Your task to perform on an android device: open a bookmark in the chrome app Image 0: 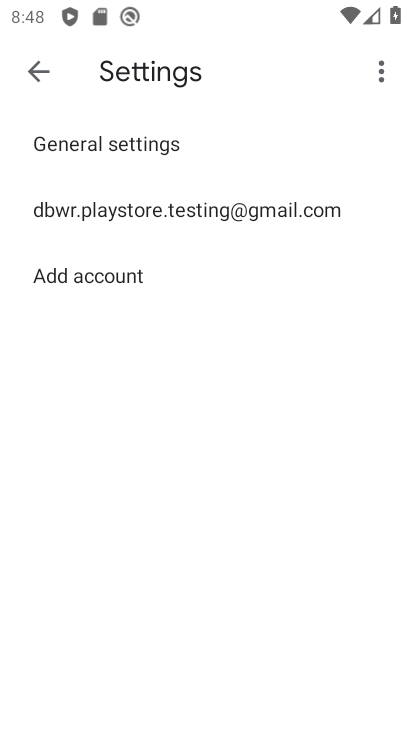
Step 0: press home button
Your task to perform on an android device: open a bookmark in the chrome app Image 1: 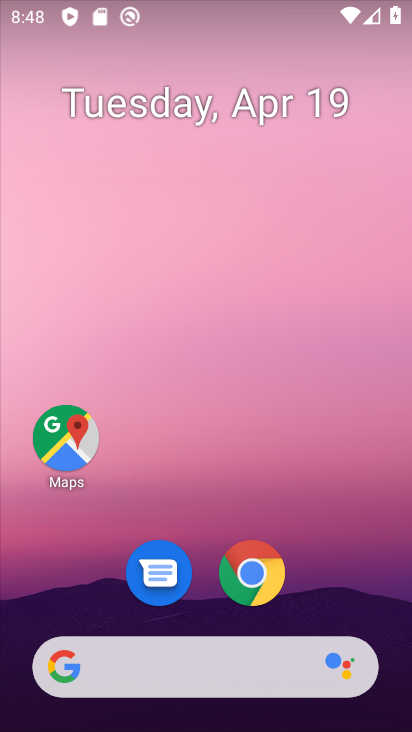
Step 1: click (259, 578)
Your task to perform on an android device: open a bookmark in the chrome app Image 2: 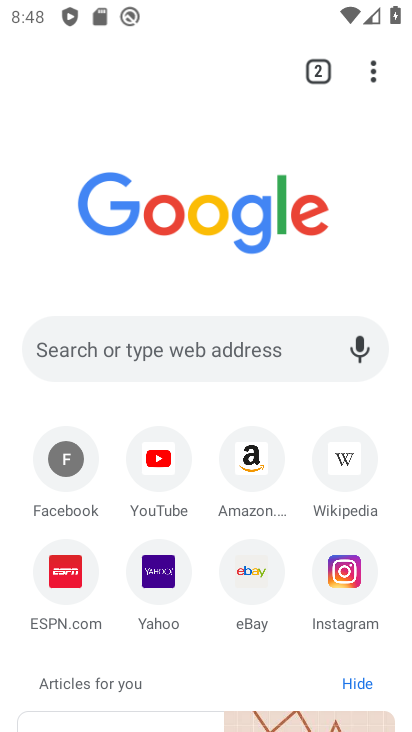
Step 2: click (371, 70)
Your task to perform on an android device: open a bookmark in the chrome app Image 3: 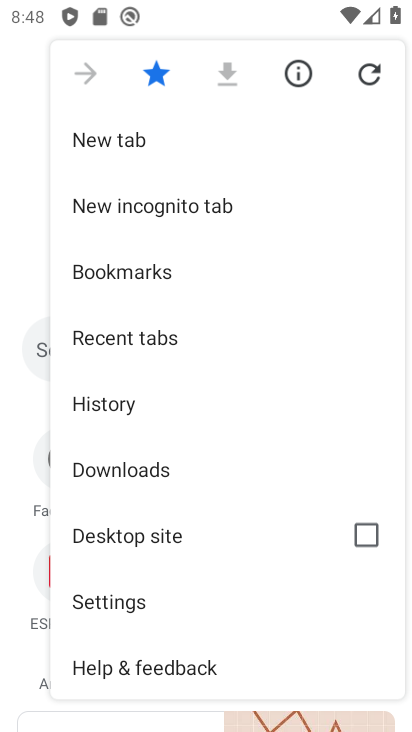
Step 3: click (159, 269)
Your task to perform on an android device: open a bookmark in the chrome app Image 4: 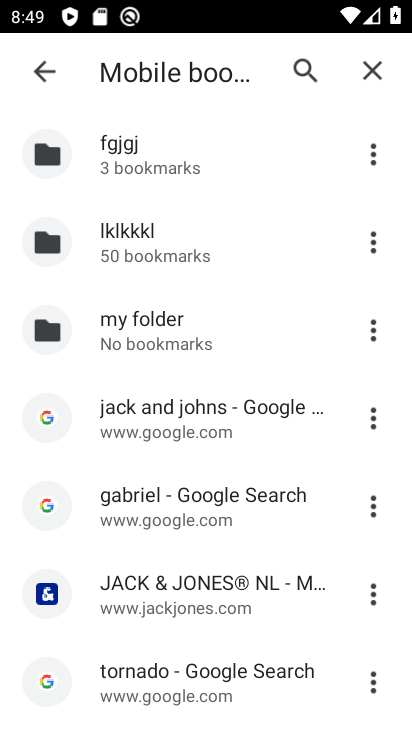
Step 4: click (138, 410)
Your task to perform on an android device: open a bookmark in the chrome app Image 5: 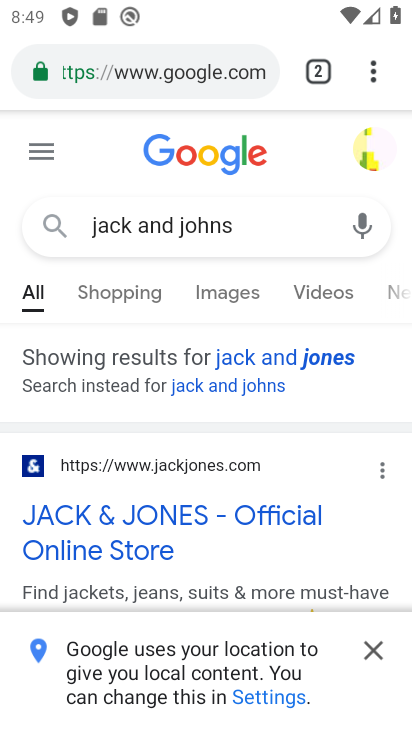
Step 5: task complete